Your task to perform on an android device: Go to Google maps Image 0: 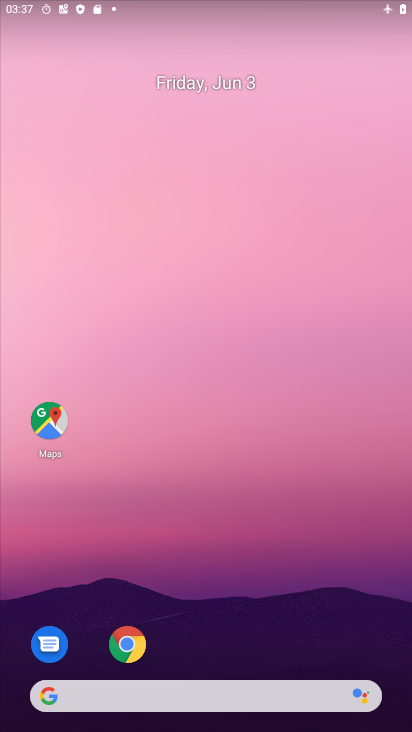
Step 0: drag from (255, 646) to (270, 160)
Your task to perform on an android device: Go to Google maps Image 1: 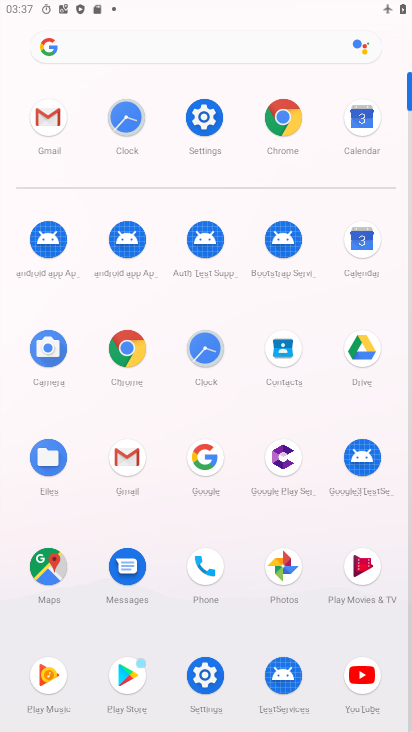
Step 1: click (54, 557)
Your task to perform on an android device: Go to Google maps Image 2: 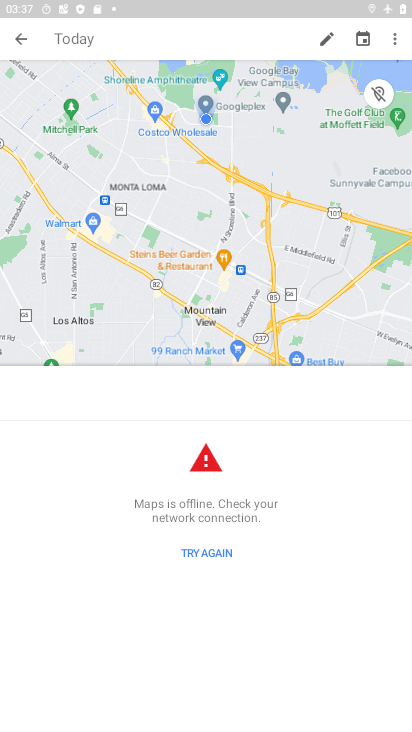
Step 2: task complete